Your task to perform on an android device: Open location settings Image 0: 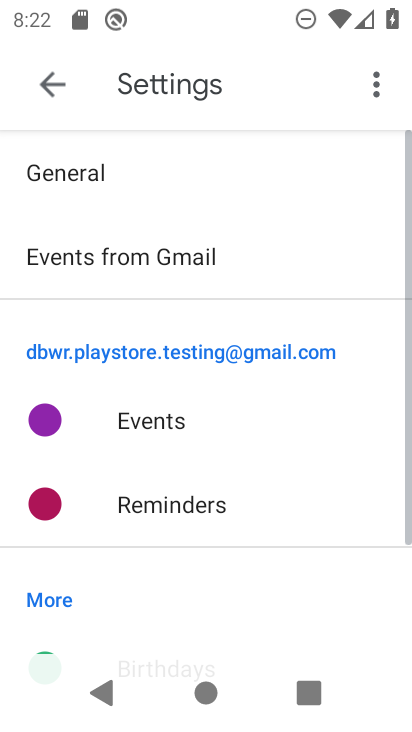
Step 0: drag from (230, 610) to (208, 233)
Your task to perform on an android device: Open location settings Image 1: 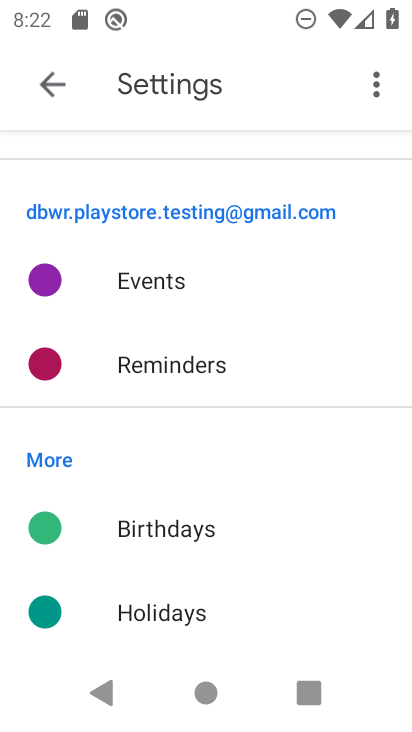
Step 1: press home button
Your task to perform on an android device: Open location settings Image 2: 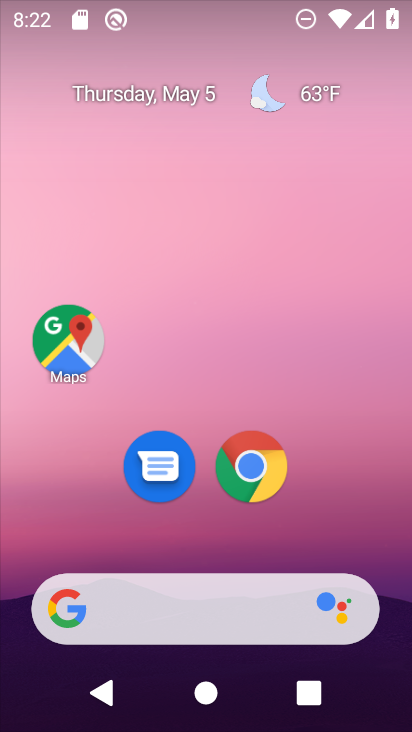
Step 2: drag from (189, 597) to (172, 44)
Your task to perform on an android device: Open location settings Image 3: 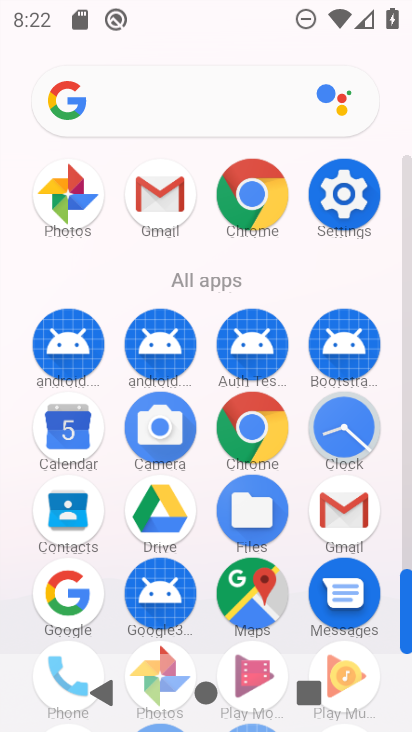
Step 3: click (375, 190)
Your task to perform on an android device: Open location settings Image 4: 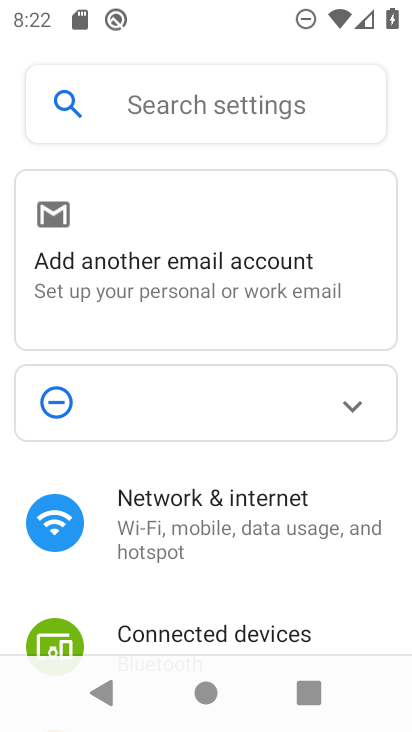
Step 4: drag from (205, 572) to (200, 39)
Your task to perform on an android device: Open location settings Image 5: 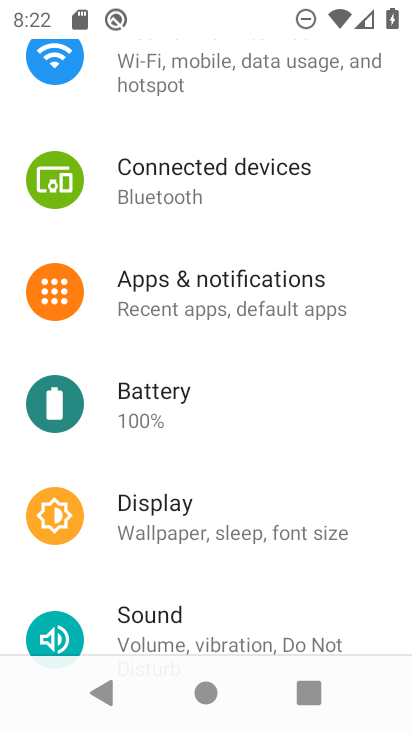
Step 5: drag from (305, 598) to (277, 118)
Your task to perform on an android device: Open location settings Image 6: 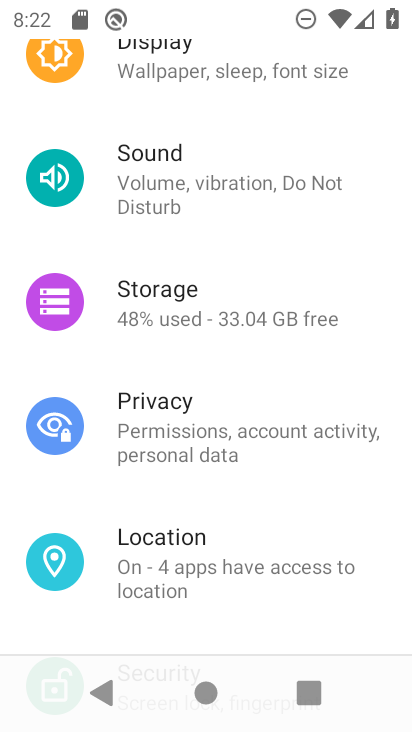
Step 6: click (249, 557)
Your task to perform on an android device: Open location settings Image 7: 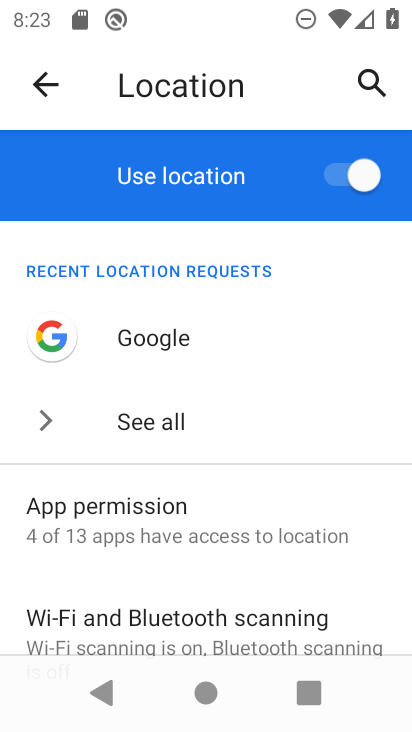
Step 7: task complete